Your task to perform on an android device: show emergency info Image 0: 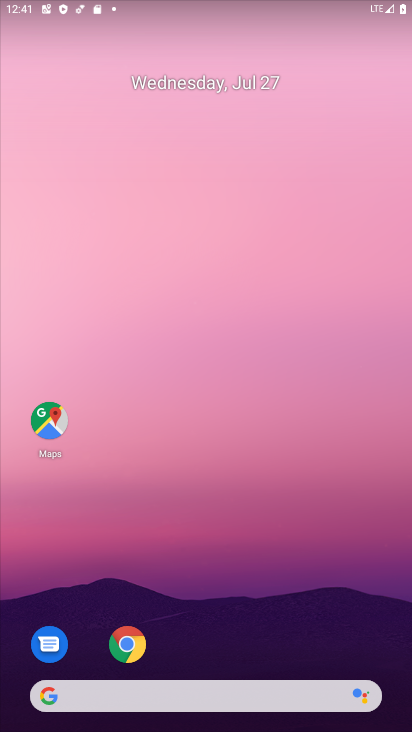
Step 0: drag from (254, 583) to (275, 114)
Your task to perform on an android device: show emergency info Image 1: 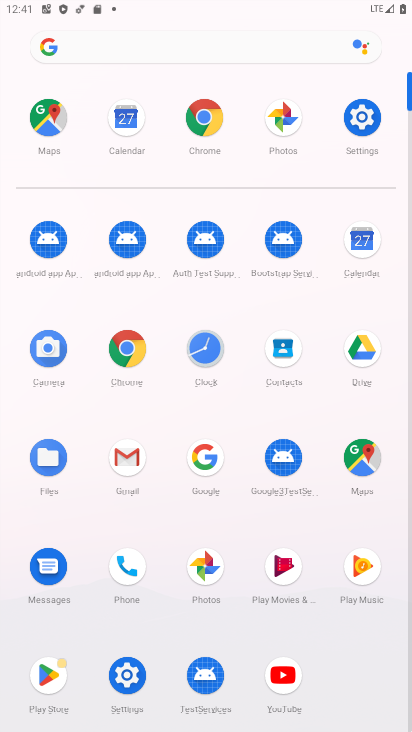
Step 1: click (126, 684)
Your task to perform on an android device: show emergency info Image 2: 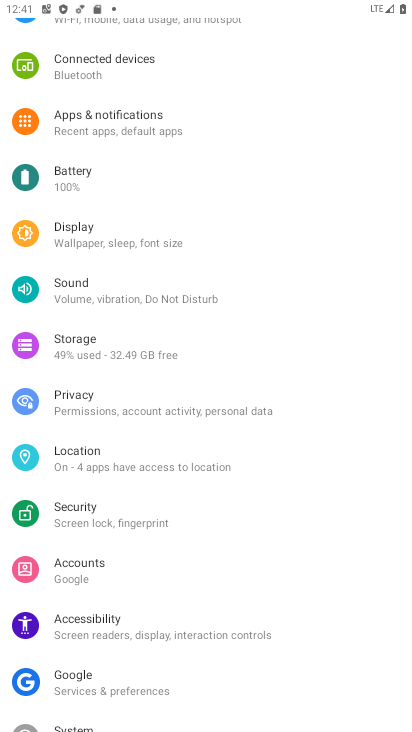
Step 2: drag from (137, 578) to (183, 166)
Your task to perform on an android device: show emergency info Image 3: 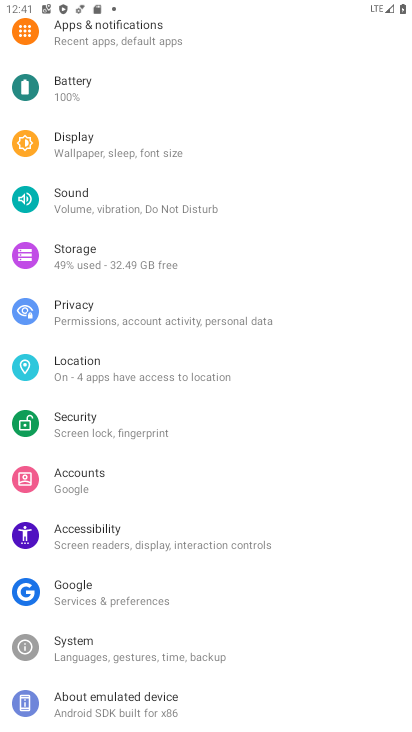
Step 3: click (115, 707)
Your task to perform on an android device: show emergency info Image 4: 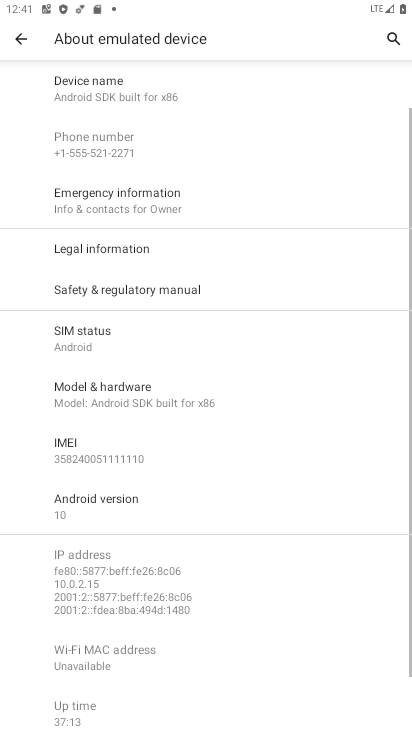
Step 4: click (169, 202)
Your task to perform on an android device: show emergency info Image 5: 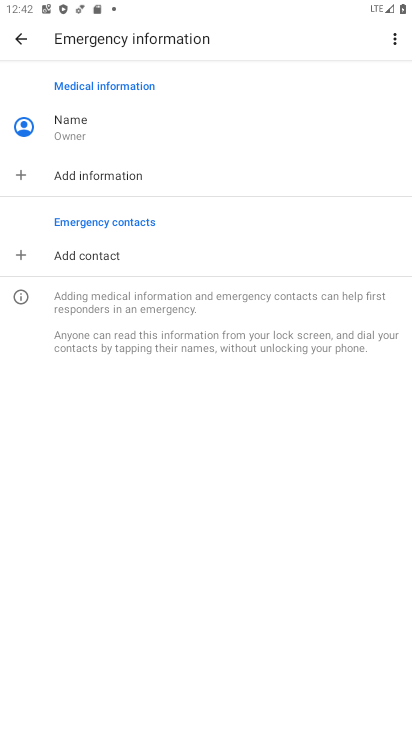
Step 5: task complete